Your task to perform on an android device: open a bookmark in the chrome app Image 0: 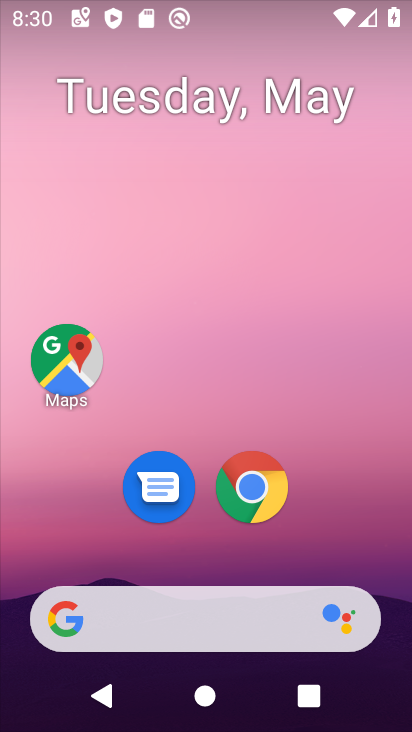
Step 0: drag from (374, 547) to (354, 181)
Your task to perform on an android device: open a bookmark in the chrome app Image 1: 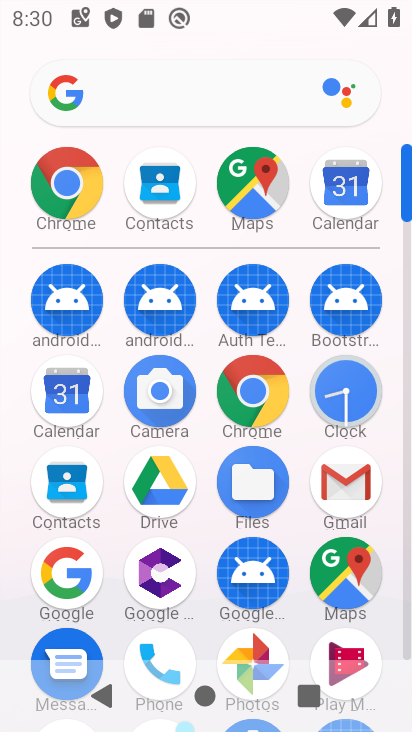
Step 1: click (269, 409)
Your task to perform on an android device: open a bookmark in the chrome app Image 2: 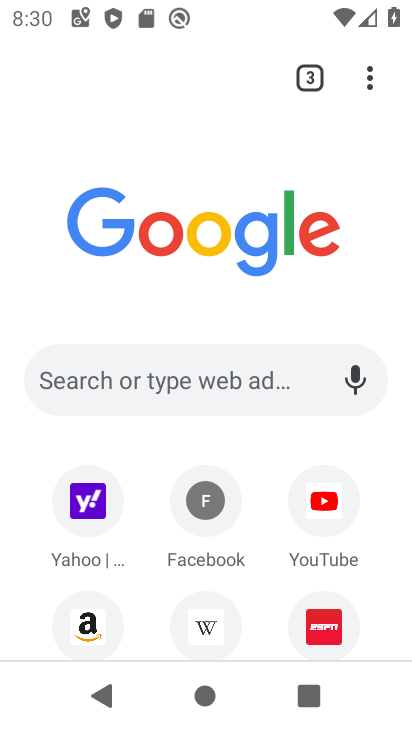
Step 2: click (368, 87)
Your task to perform on an android device: open a bookmark in the chrome app Image 3: 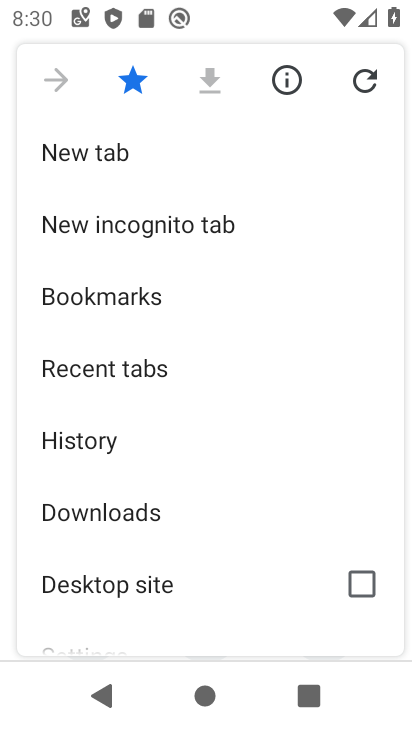
Step 3: click (182, 301)
Your task to perform on an android device: open a bookmark in the chrome app Image 4: 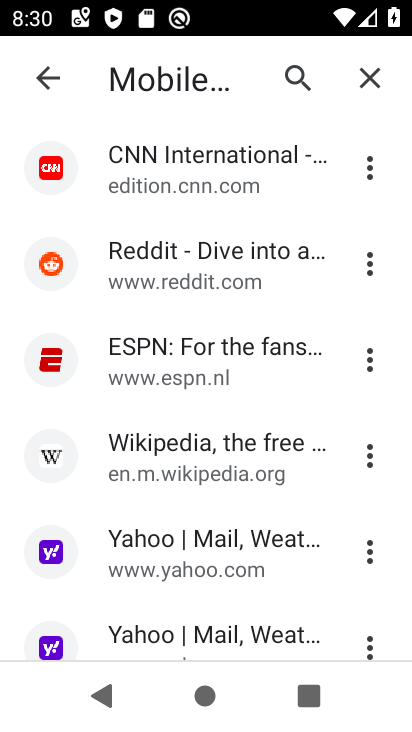
Step 4: click (199, 465)
Your task to perform on an android device: open a bookmark in the chrome app Image 5: 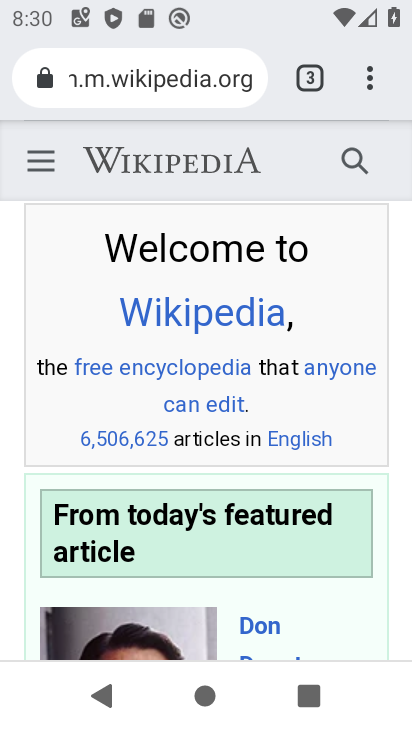
Step 5: task complete